Your task to perform on an android device: turn on notifications settings in the gmail app Image 0: 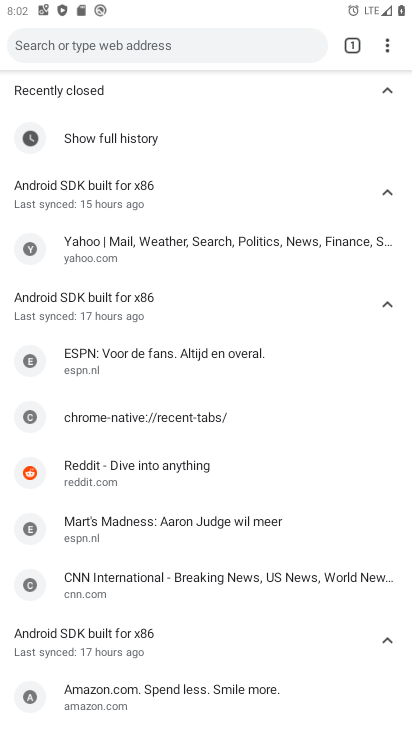
Step 0: press home button
Your task to perform on an android device: turn on notifications settings in the gmail app Image 1: 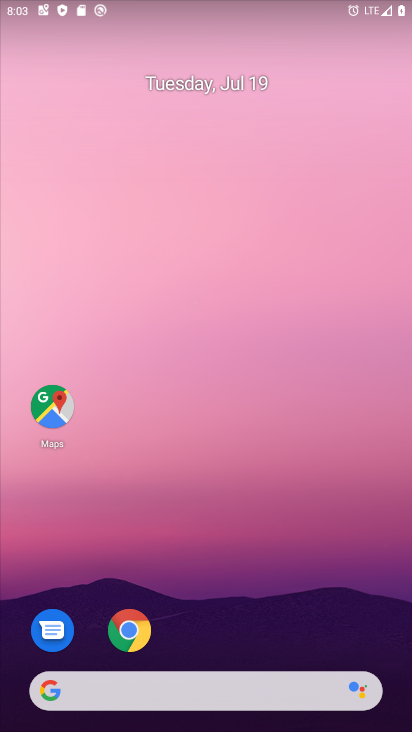
Step 1: drag from (284, 616) to (278, 12)
Your task to perform on an android device: turn on notifications settings in the gmail app Image 2: 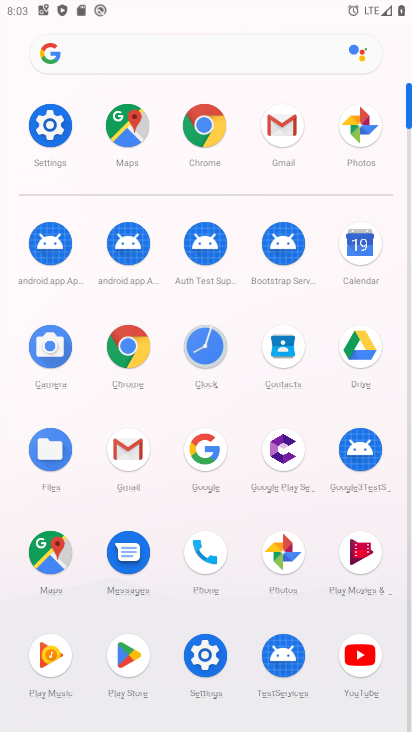
Step 2: click (280, 126)
Your task to perform on an android device: turn on notifications settings in the gmail app Image 3: 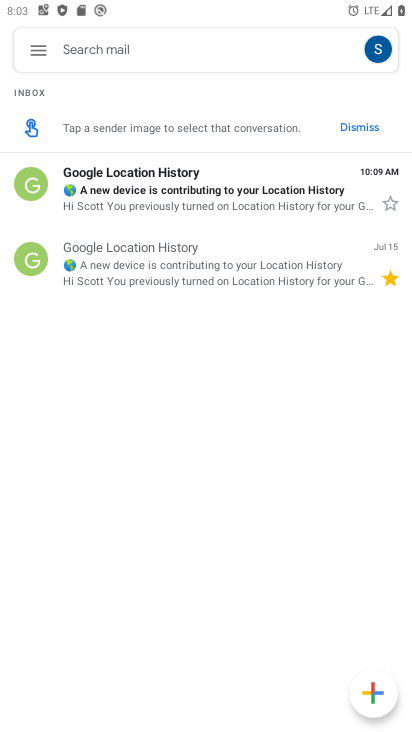
Step 3: click (39, 46)
Your task to perform on an android device: turn on notifications settings in the gmail app Image 4: 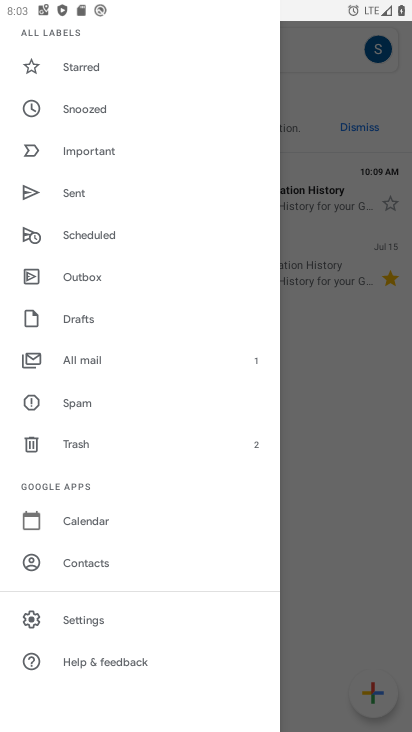
Step 4: click (85, 616)
Your task to perform on an android device: turn on notifications settings in the gmail app Image 5: 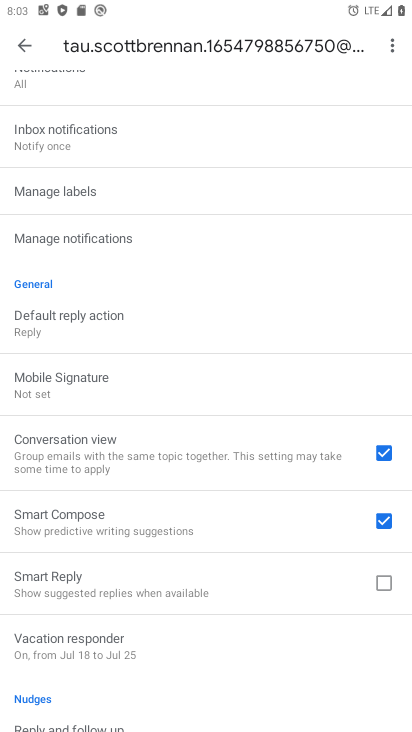
Step 5: click (94, 241)
Your task to perform on an android device: turn on notifications settings in the gmail app Image 6: 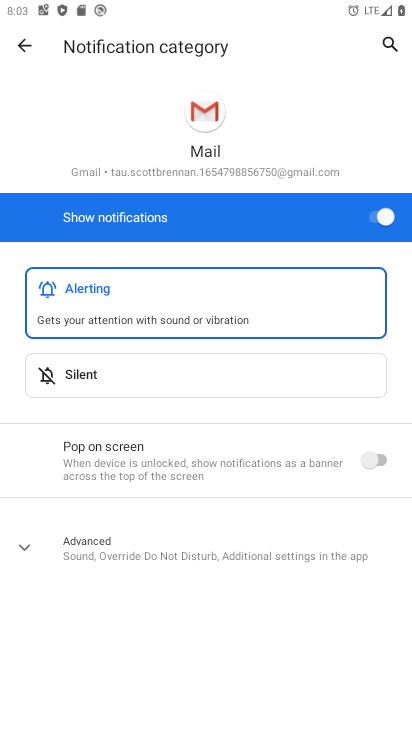
Step 6: task complete